Your task to perform on an android device: set default search engine in the chrome app Image 0: 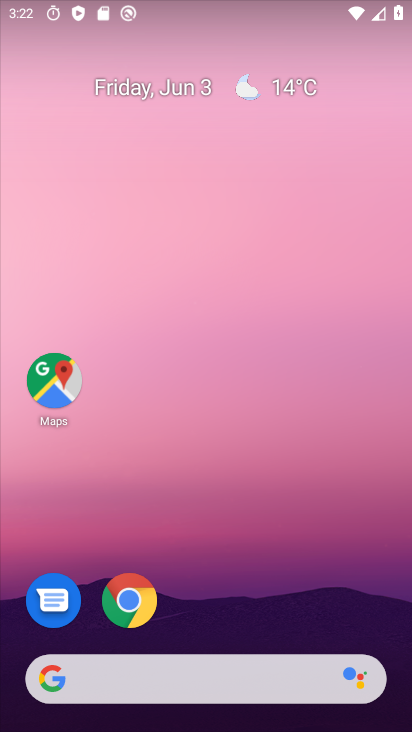
Step 0: drag from (254, 542) to (162, 12)
Your task to perform on an android device: set default search engine in the chrome app Image 1: 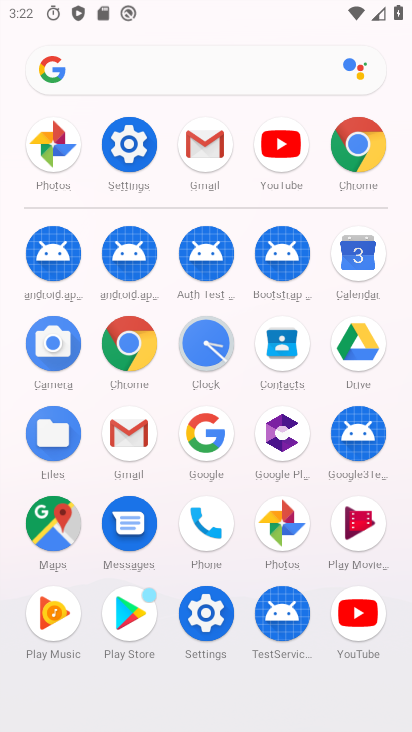
Step 1: click (126, 337)
Your task to perform on an android device: set default search engine in the chrome app Image 2: 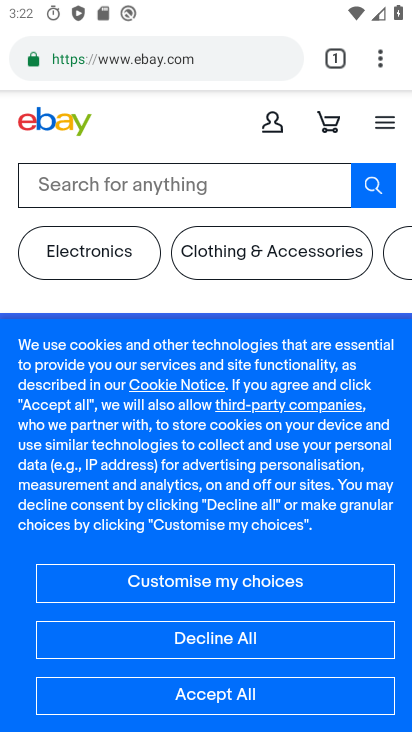
Step 2: task complete